Your task to perform on an android device: clear all cookies in the chrome app Image 0: 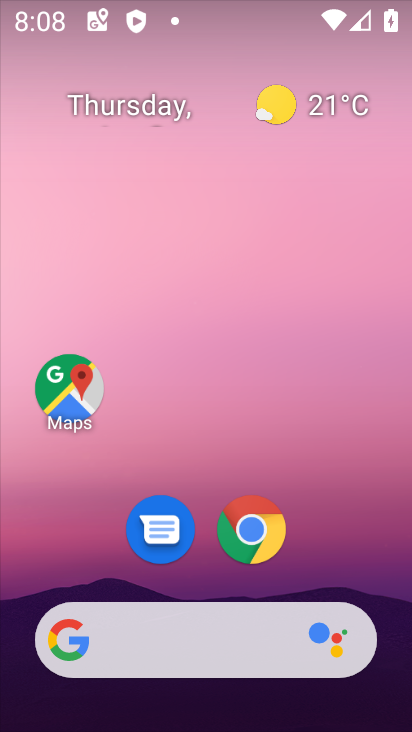
Step 0: click (247, 536)
Your task to perform on an android device: clear all cookies in the chrome app Image 1: 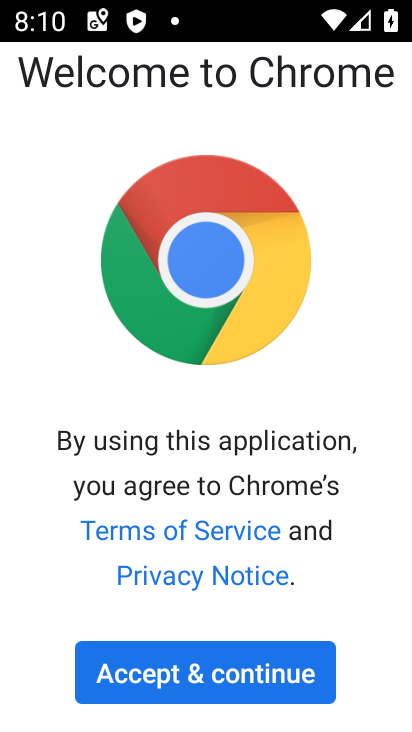
Step 1: click (213, 670)
Your task to perform on an android device: clear all cookies in the chrome app Image 2: 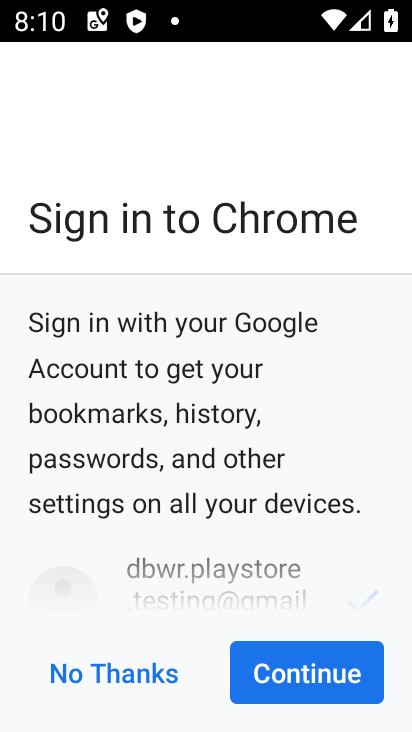
Step 2: click (305, 678)
Your task to perform on an android device: clear all cookies in the chrome app Image 3: 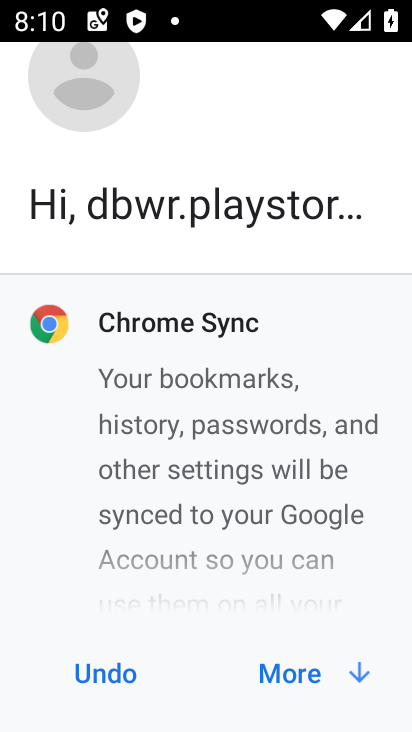
Step 3: click (305, 678)
Your task to perform on an android device: clear all cookies in the chrome app Image 4: 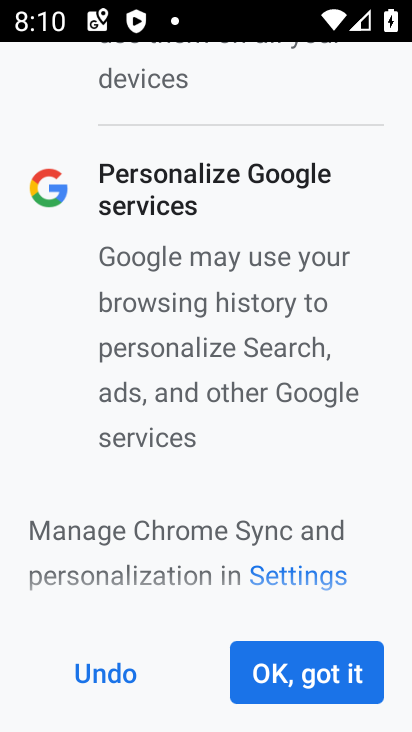
Step 4: click (305, 678)
Your task to perform on an android device: clear all cookies in the chrome app Image 5: 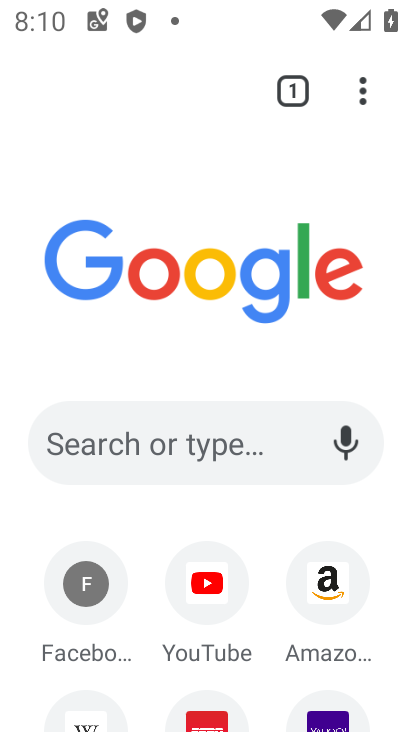
Step 5: click (358, 96)
Your task to perform on an android device: clear all cookies in the chrome app Image 6: 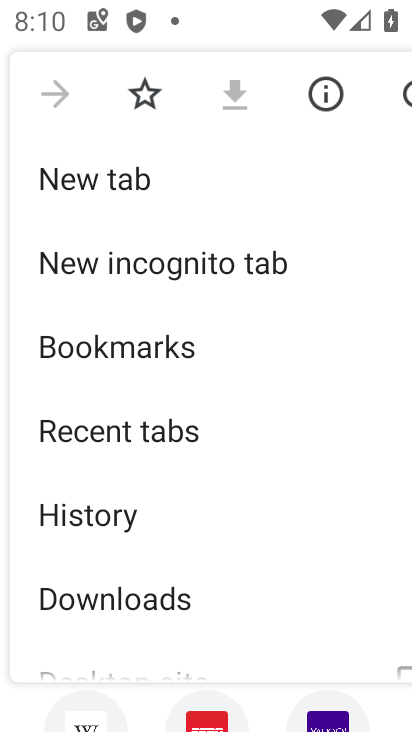
Step 6: click (101, 519)
Your task to perform on an android device: clear all cookies in the chrome app Image 7: 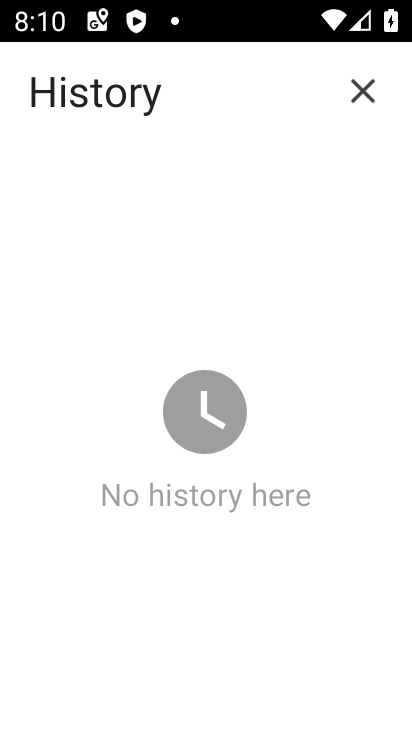
Step 7: task complete